Your task to perform on an android device: check out phone information Image 0: 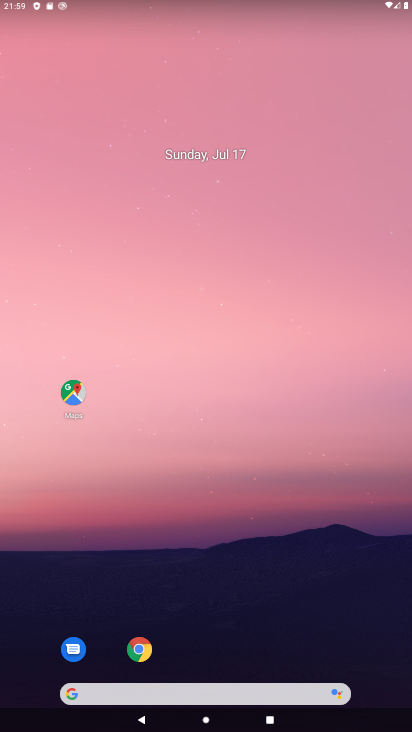
Step 0: drag from (9, 699) to (213, 234)
Your task to perform on an android device: check out phone information Image 1: 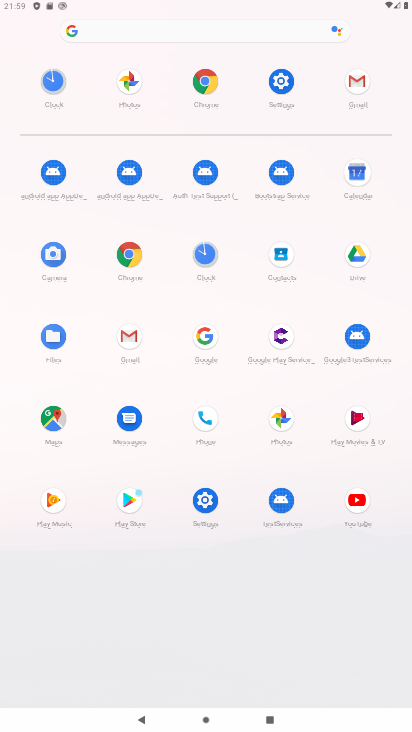
Step 1: click (193, 419)
Your task to perform on an android device: check out phone information Image 2: 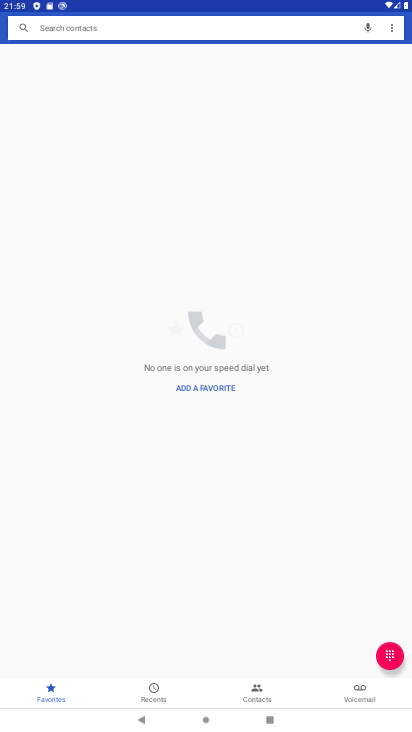
Step 2: click (256, 686)
Your task to perform on an android device: check out phone information Image 3: 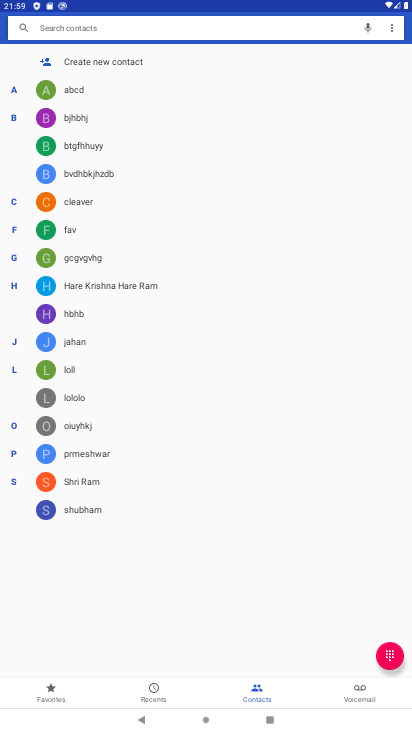
Step 3: task complete